Your task to perform on an android device: Go to eBay Image 0: 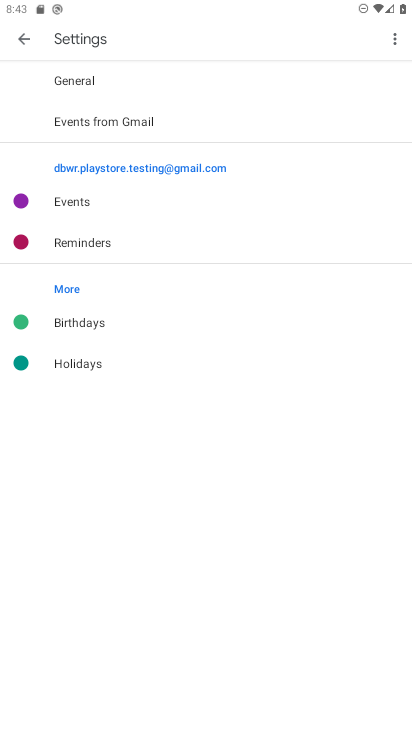
Step 0: press home button
Your task to perform on an android device: Go to eBay Image 1: 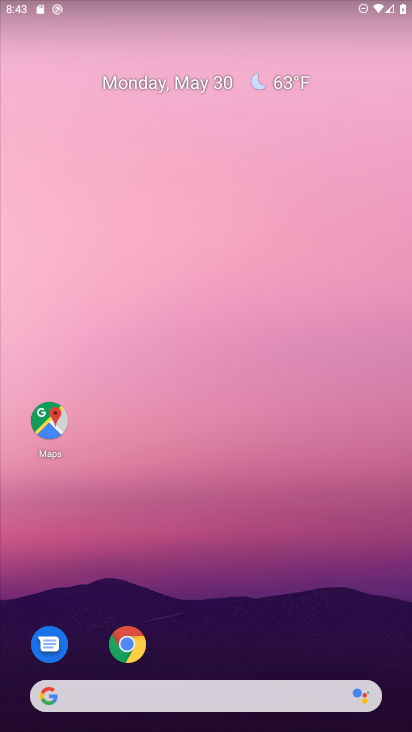
Step 1: drag from (280, 596) to (336, 41)
Your task to perform on an android device: Go to eBay Image 2: 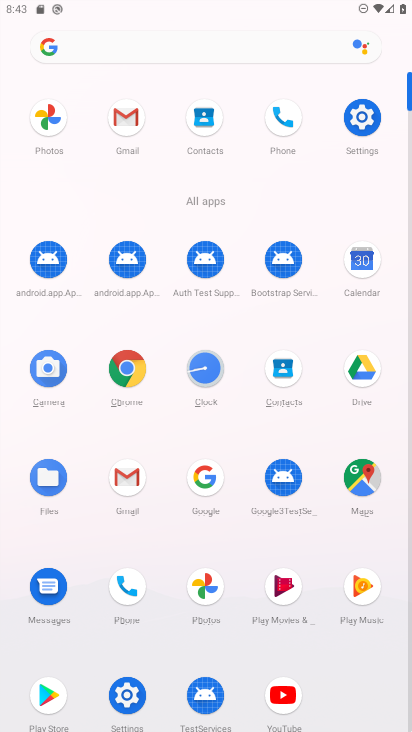
Step 2: click (203, 477)
Your task to perform on an android device: Go to eBay Image 3: 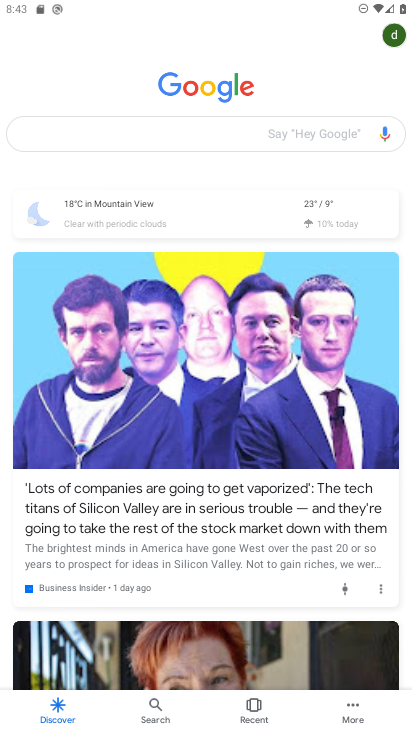
Step 3: click (170, 128)
Your task to perform on an android device: Go to eBay Image 4: 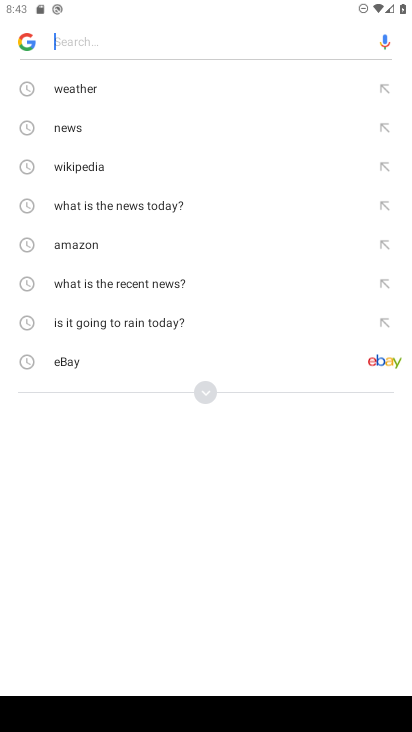
Step 4: click (139, 372)
Your task to perform on an android device: Go to eBay Image 5: 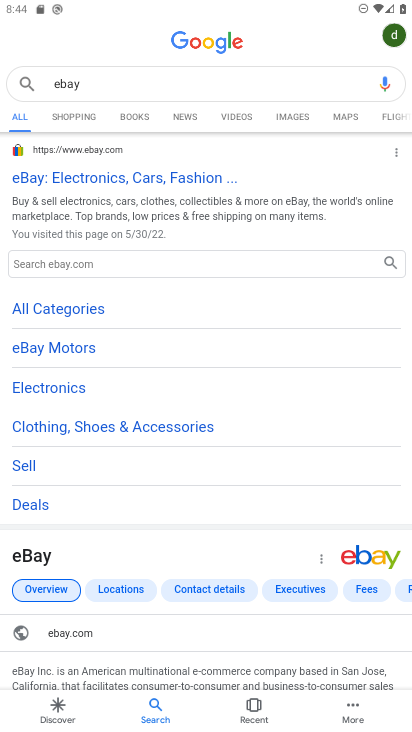
Step 5: task complete